Your task to perform on an android device: Clear the shopping cart on costco. Add "corsair k70" to the cart on costco Image 0: 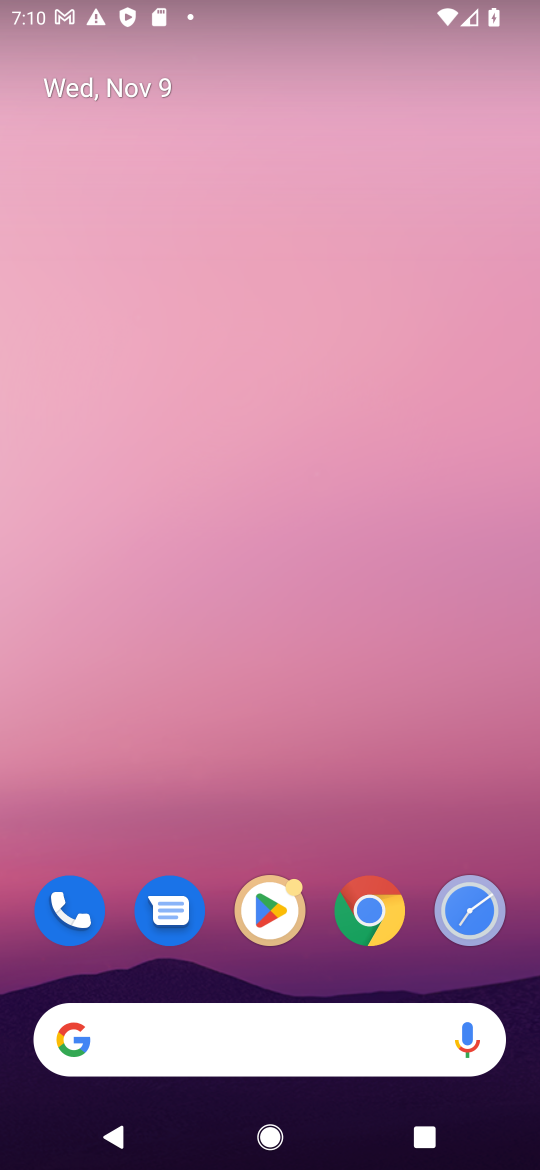
Step 0: click (373, 908)
Your task to perform on an android device: Clear the shopping cart on costco. Add "corsair k70" to the cart on costco Image 1: 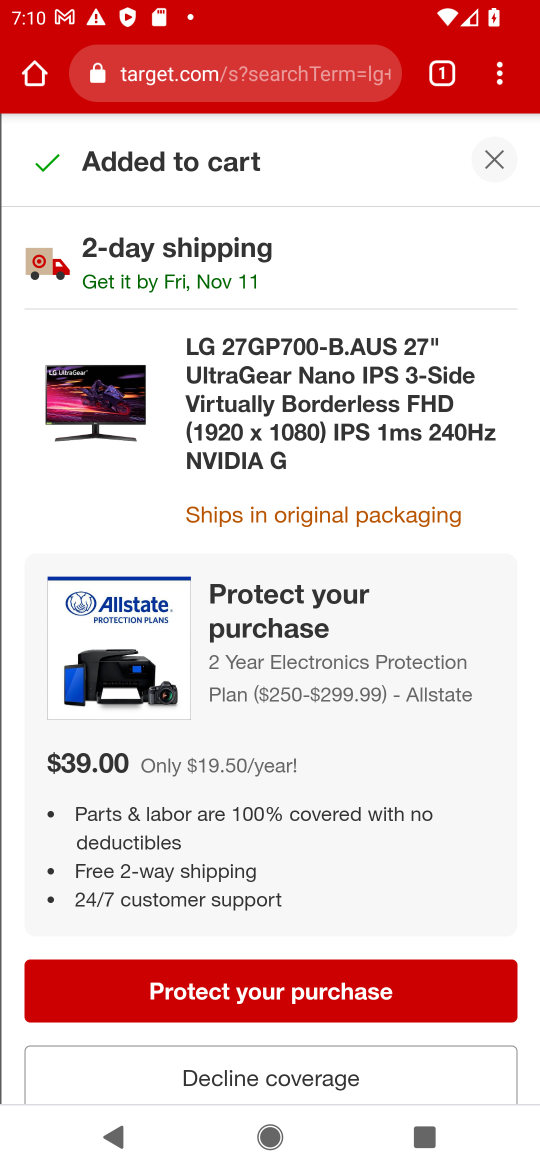
Step 1: click (231, 85)
Your task to perform on an android device: Clear the shopping cart on costco. Add "corsair k70" to the cart on costco Image 2: 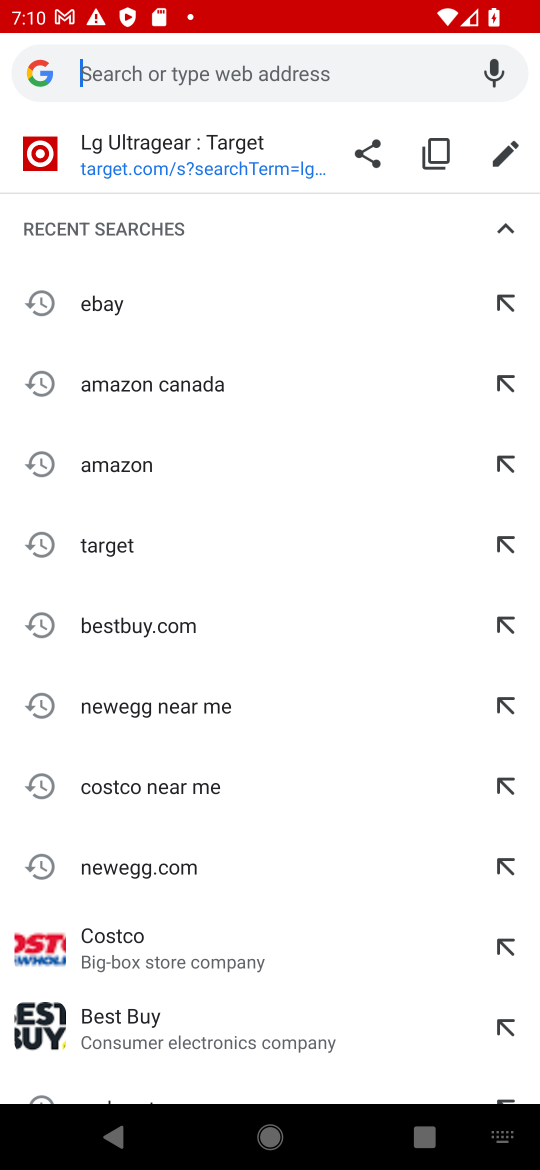
Step 2: type "costco.com"
Your task to perform on an android device: Clear the shopping cart on costco. Add "corsair k70" to the cart on costco Image 3: 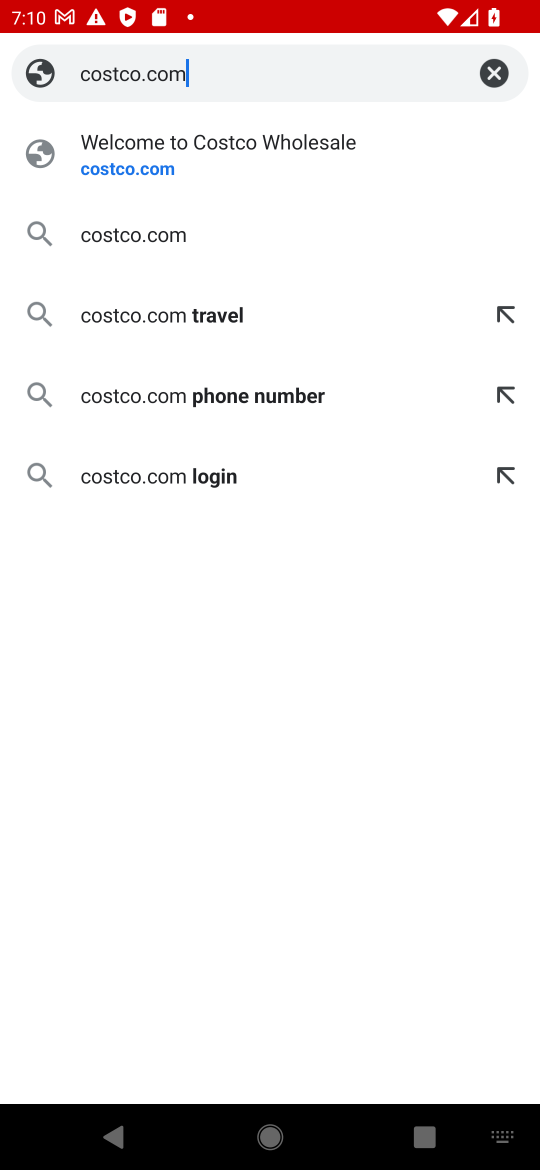
Step 3: click (110, 177)
Your task to perform on an android device: Clear the shopping cart on costco. Add "corsair k70" to the cart on costco Image 4: 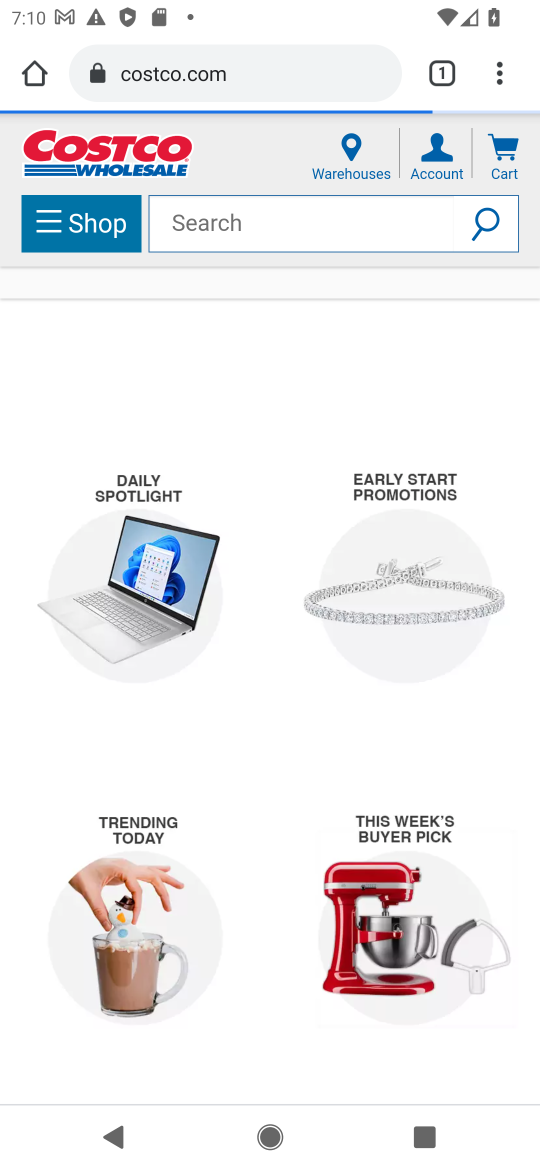
Step 4: click (516, 154)
Your task to perform on an android device: Clear the shopping cart on costco. Add "corsair k70" to the cart on costco Image 5: 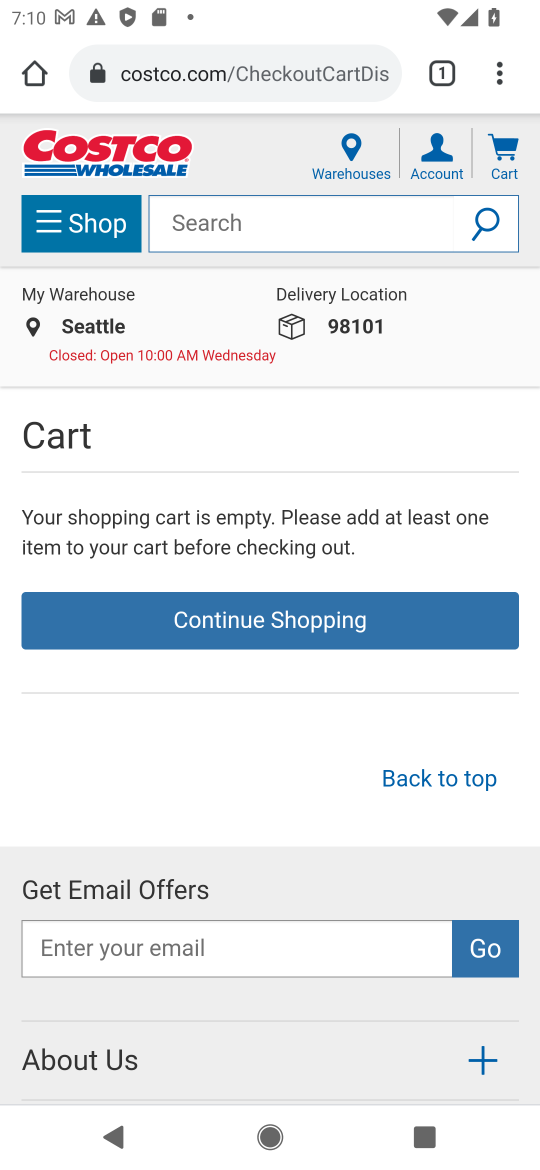
Step 5: click (254, 220)
Your task to perform on an android device: Clear the shopping cart on costco. Add "corsair k70" to the cart on costco Image 6: 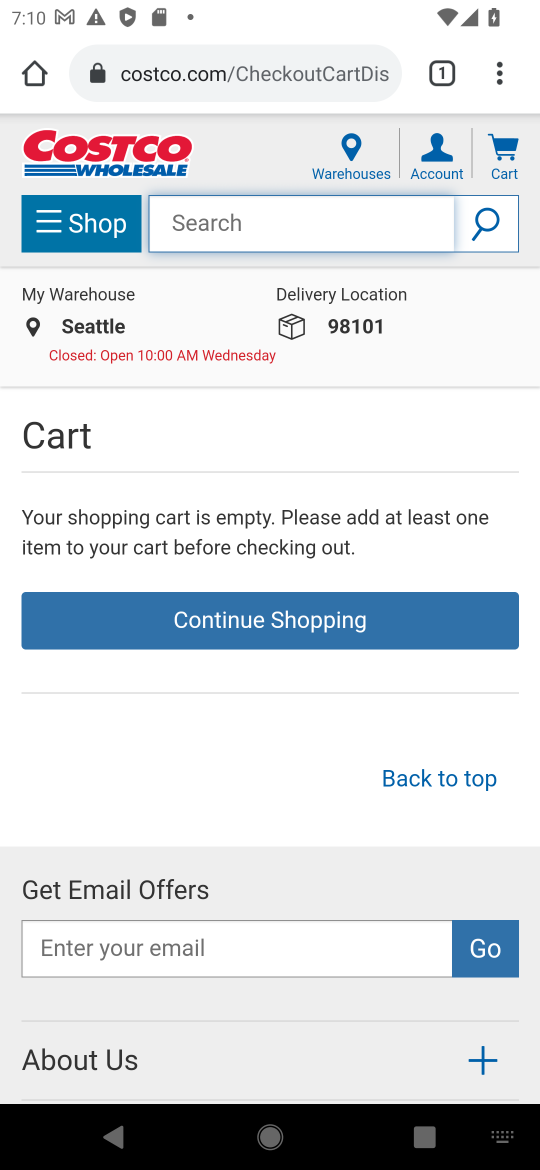
Step 6: type "corsair k70"
Your task to perform on an android device: Clear the shopping cart on costco. Add "corsair k70" to the cart on costco Image 7: 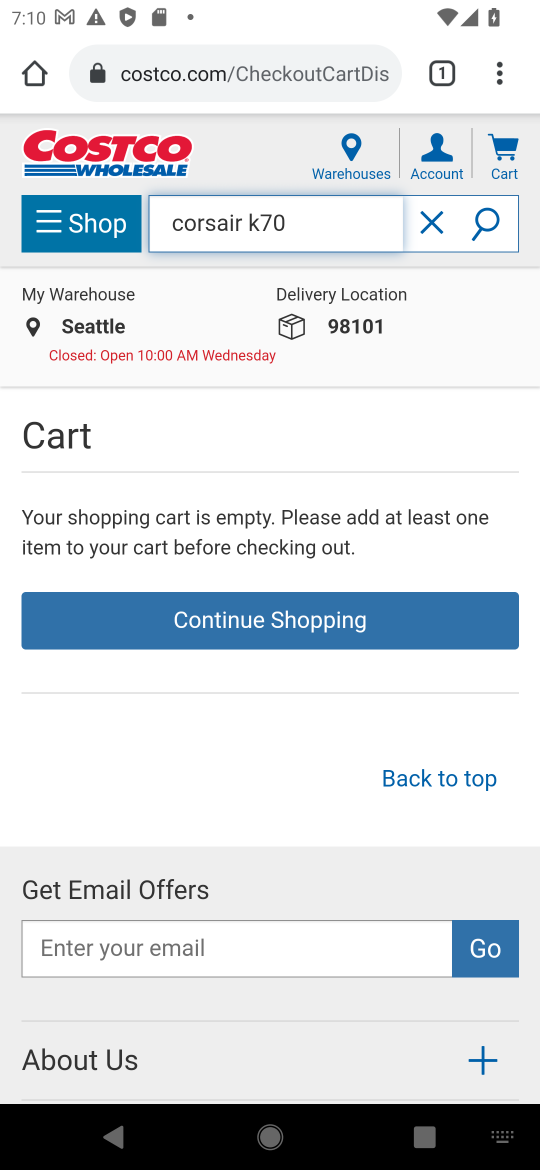
Step 7: click (471, 224)
Your task to perform on an android device: Clear the shopping cart on costco. Add "corsair k70" to the cart on costco Image 8: 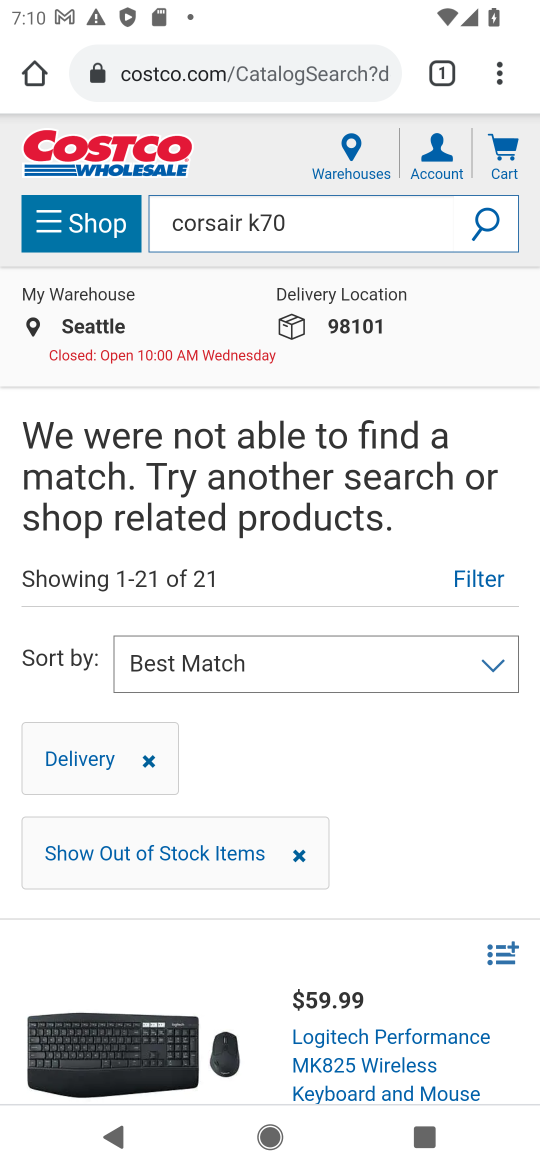
Step 8: task complete